Your task to perform on an android device: move a message to another label in the gmail app Image 0: 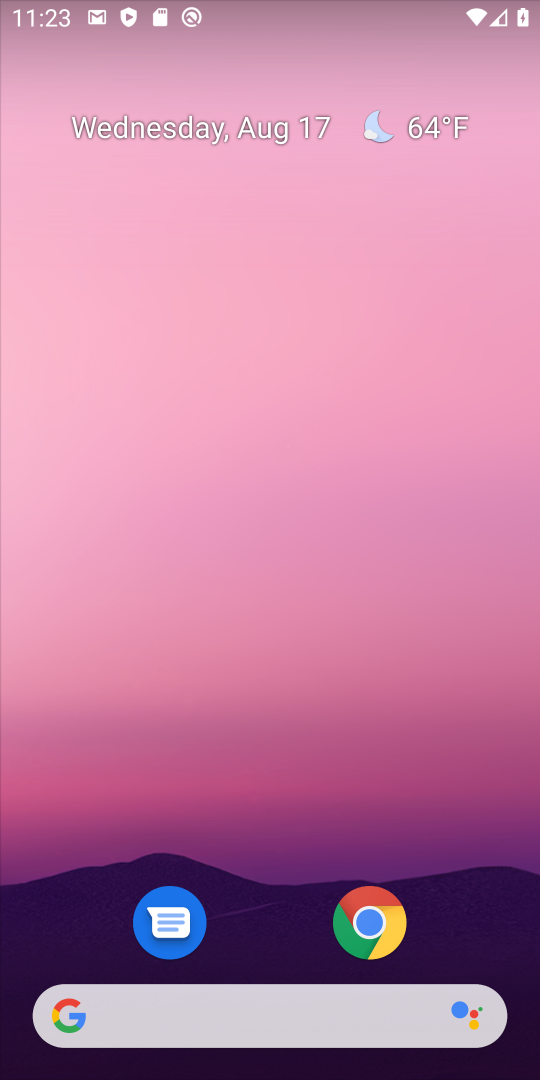
Step 0: drag from (277, 845) to (262, 32)
Your task to perform on an android device: move a message to another label in the gmail app Image 1: 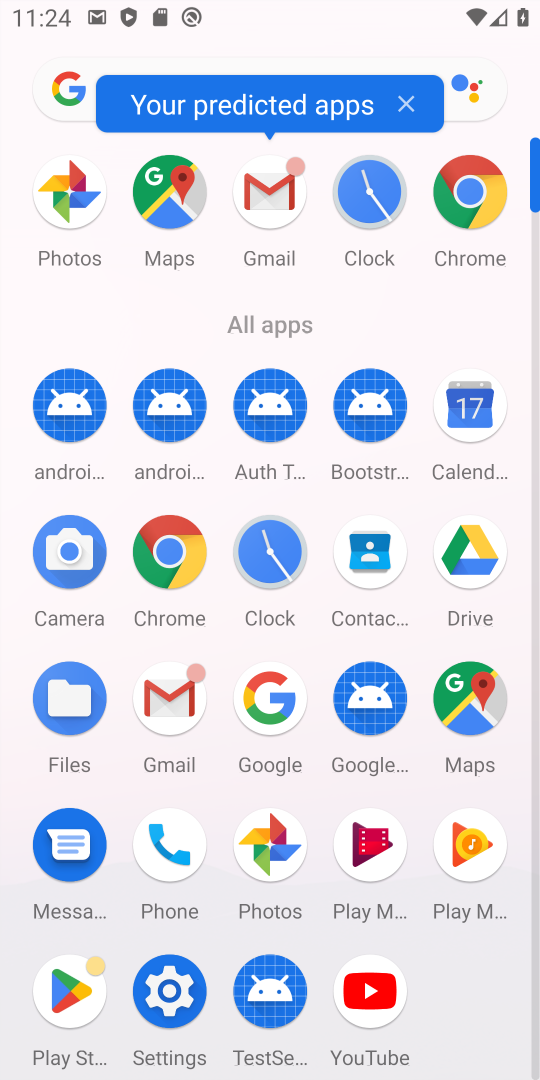
Step 1: click (275, 187)
Your task to perform on an android device: move a message to another label in the gmail app Image 2: 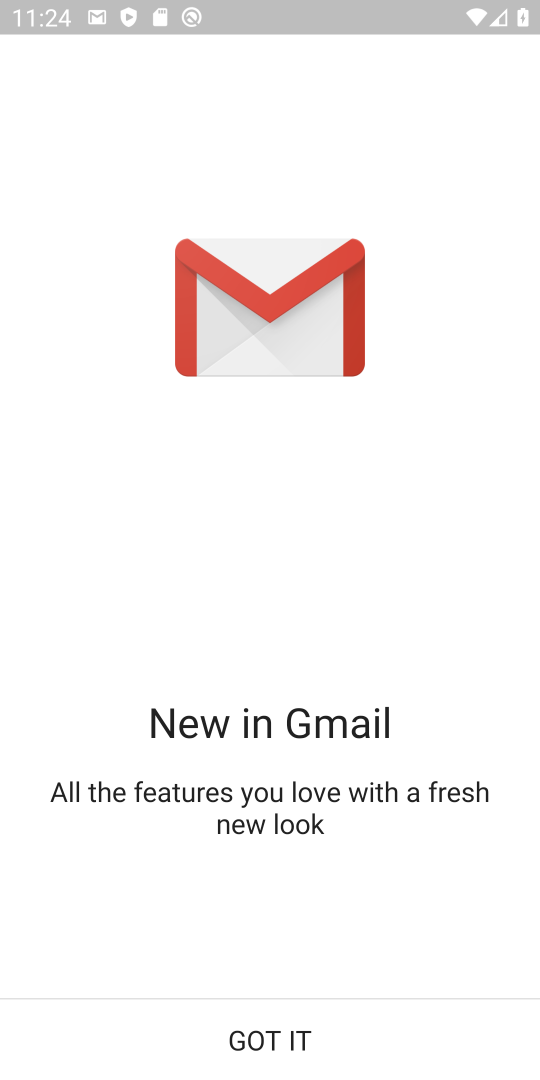
Step 2: click (282, 1037)
Your task to perform on an android device: move a message to another label in the gmail app Image 3: 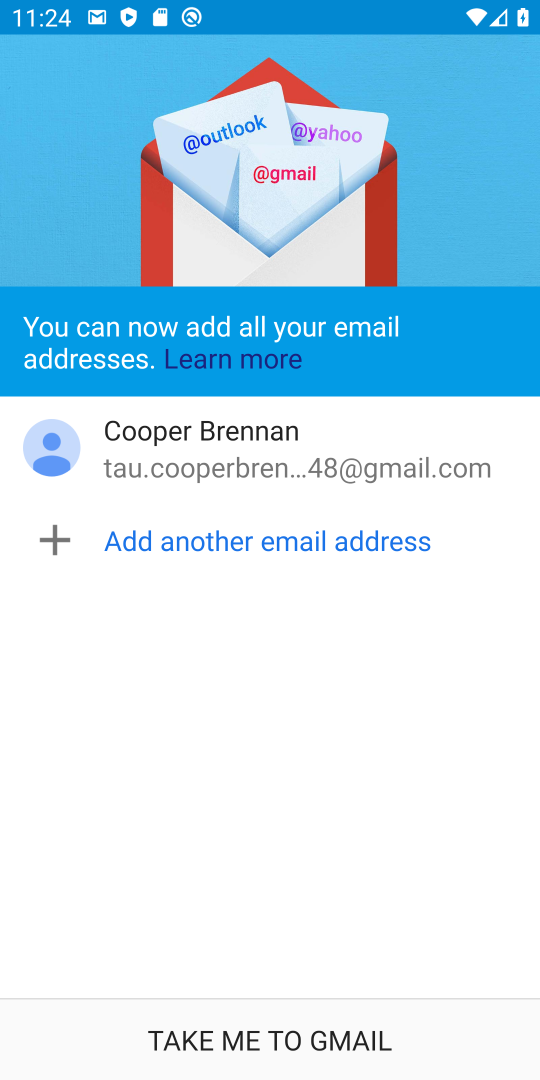
Step 3: click (282, 1037)
Your task to perform on an android device: move a message to another label in the gmail app Image 4: 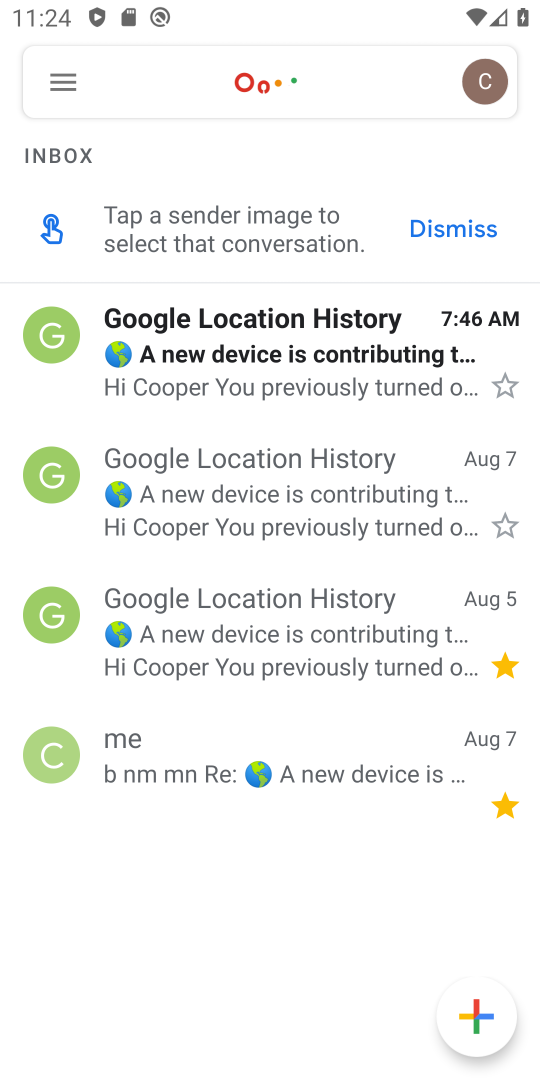
Step 4: click (277, 338)
Your task to perform on an android device: move a message to another label in the gmail app Image 5: 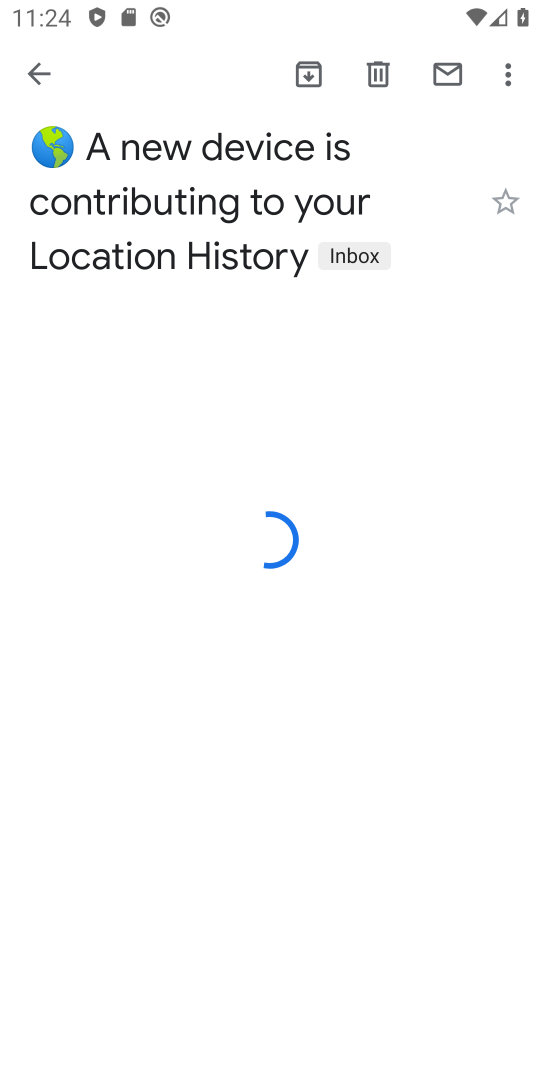
Step 5: click (508, 80)
Your task to perform on an android device: move a message to another label in the gmail app Image 6: 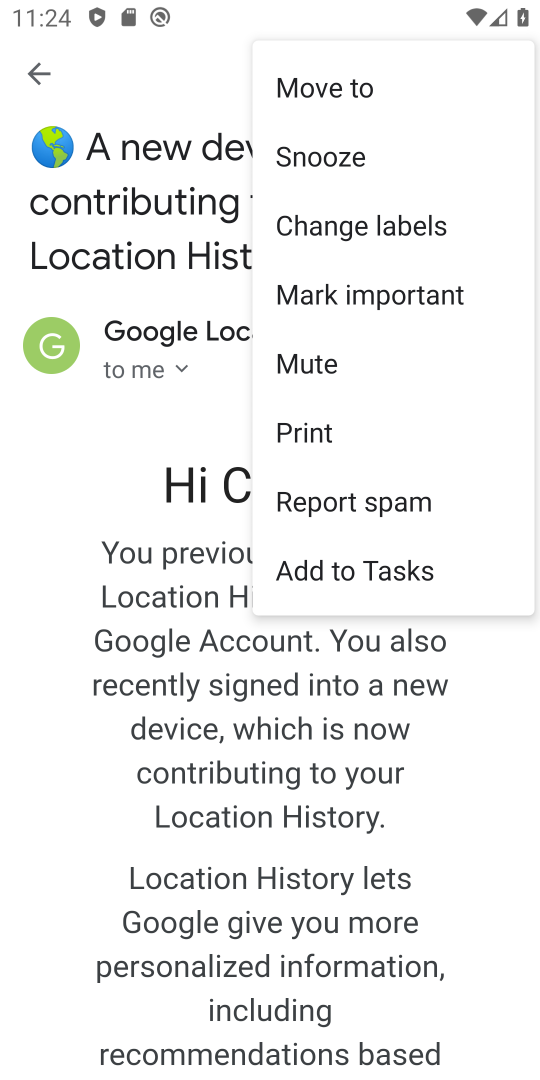
Step 6: click (340, 222)
Your task to perform on an android device: move a message to another label in the gmail app Image 7: 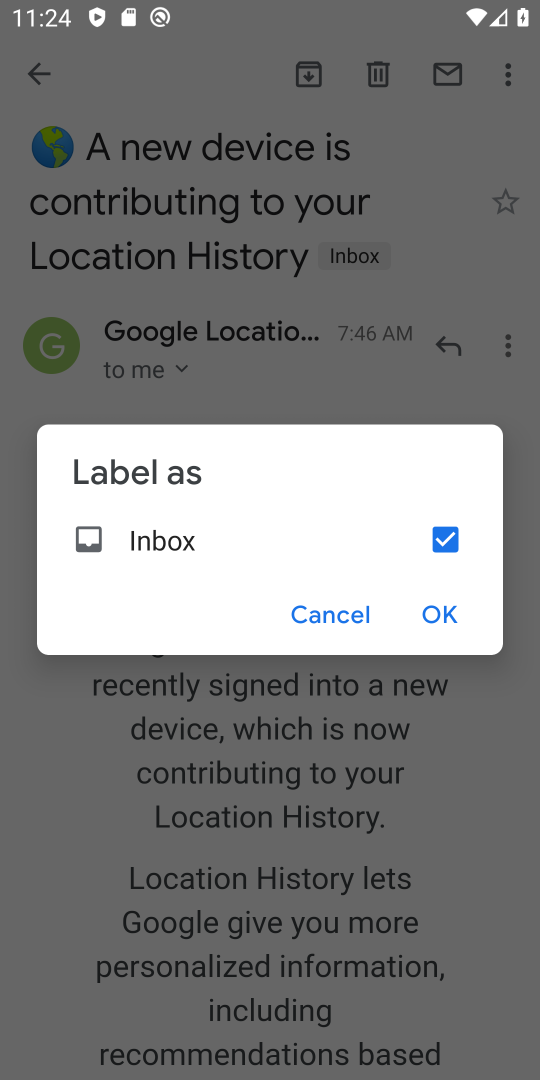
Step 7: click (448, 614)
Your task to perform on an android device: move a message to another label in the gmail app Image 8: 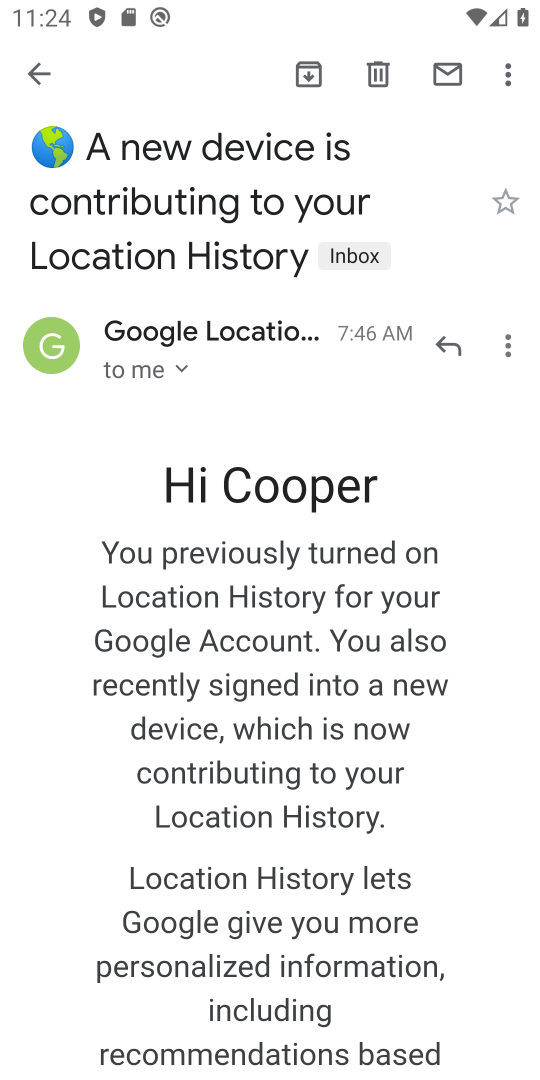
Step 8: task complete